Your task to perform on an android device: turn vacation reply on in the gmail app Image 0: 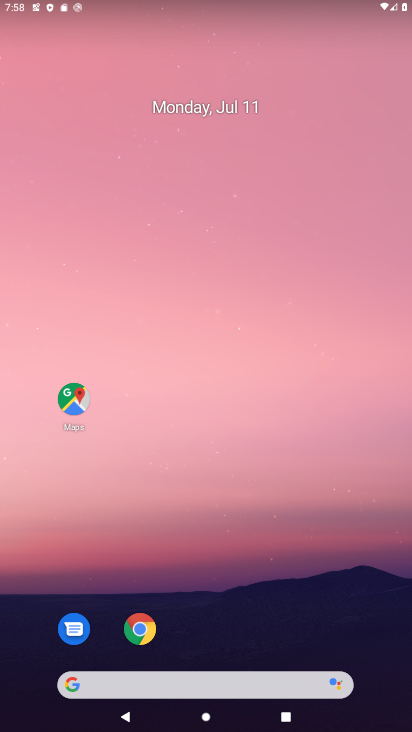
Step 0: drag from (207, 633) to (238, 182)
Your task to perform on an android device: turn vacation reply on in the gmail app Image 1: 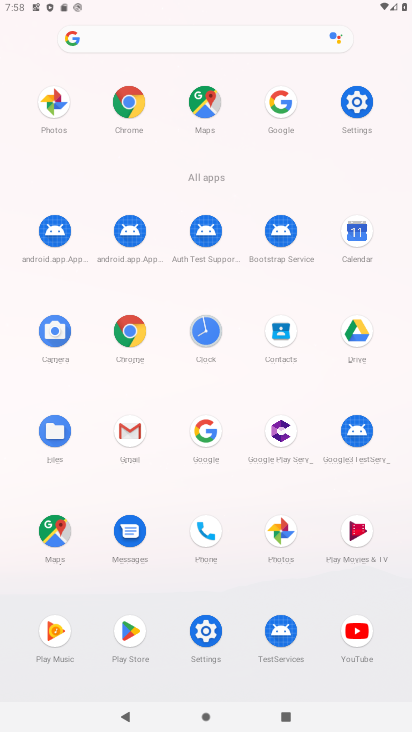
Step 1: click (131, 424)
Your task to perform on an android device: turn vacation reply on in the gmail app Image 2: 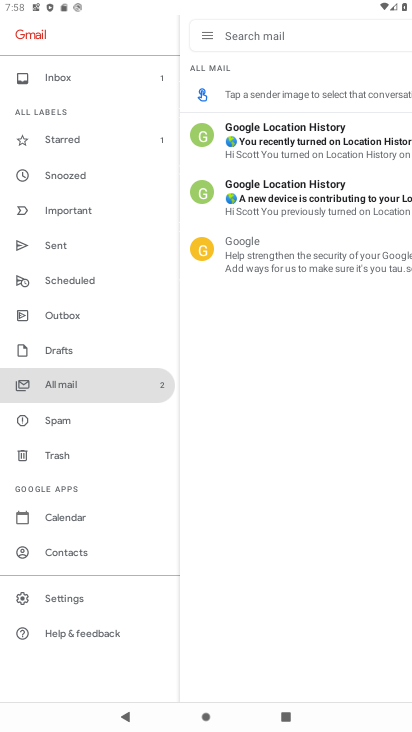
Step 2: click (205, 35)
Your task to perform on an android device: turn vacation reply on in the gmail app Image 3: 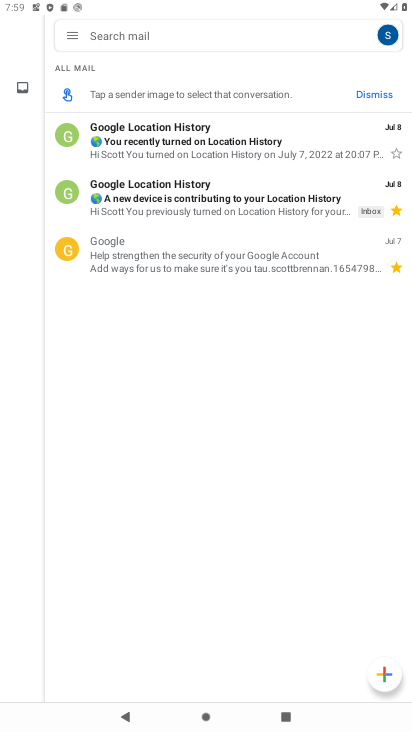
Step 3: click (66, 34)
Your task to perform on an android device: turn vacation reply on in the gmail app Image 4: 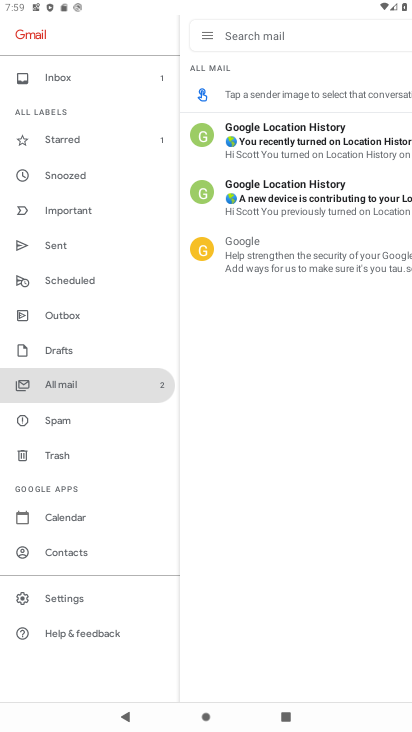
Step 4: click (59, 611)
Your task to perform on an android device: turn vacation reply on in the gmail app Image 5: 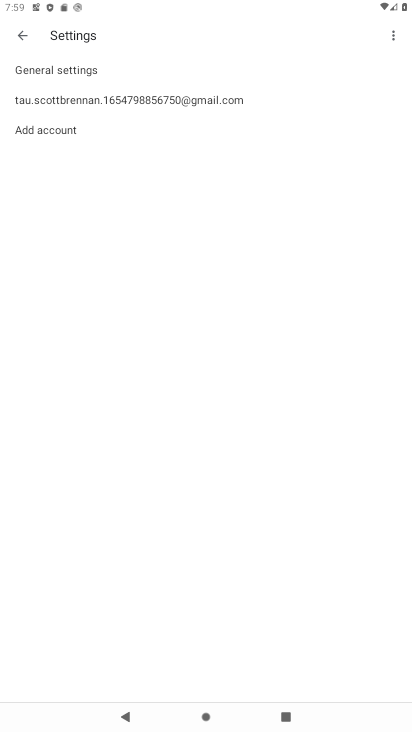
Step 5: click (73, 92)
Your task to perform on an android device: turn vacation reply on in the gmail app Image 6: 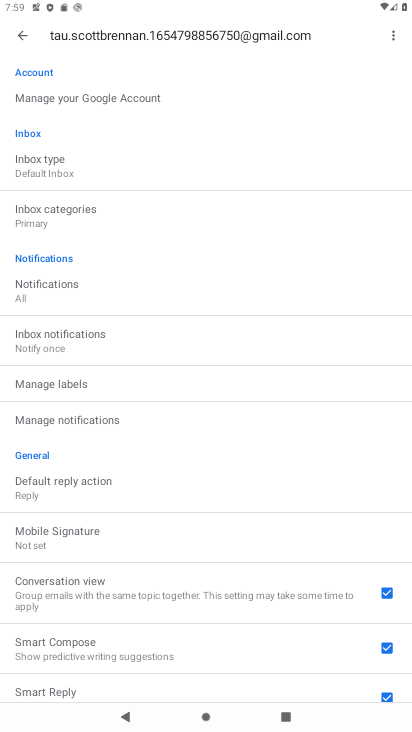
Step 6: drag from (101, 648) to (163, 358)
Your task to perform on an android device: turn vacation reply on in the gmail app Image 7: 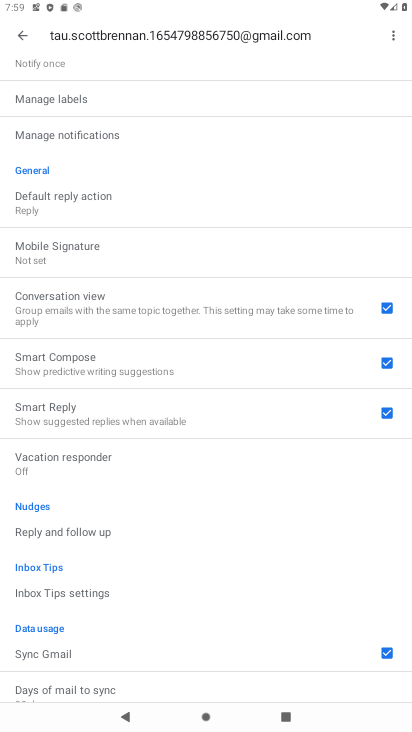
Step 7: click (126, 466)
Your task to perform on an android device: turn vacation reply on in the gmail app Image 8: 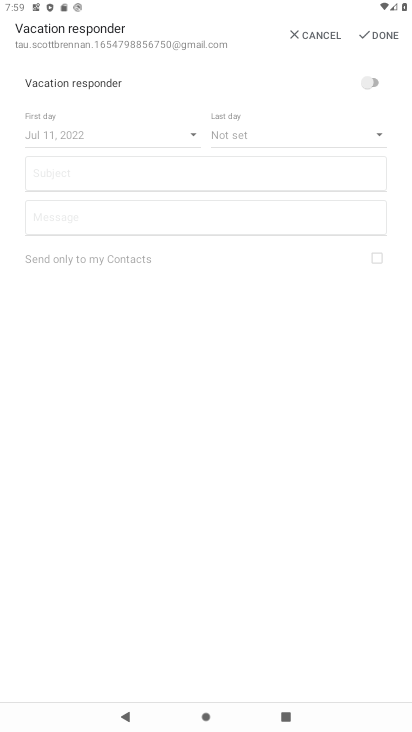
Step 8: click (369, 80)
Your task to perform on an android device: turn vacation reply on in the gmail app Image 9: 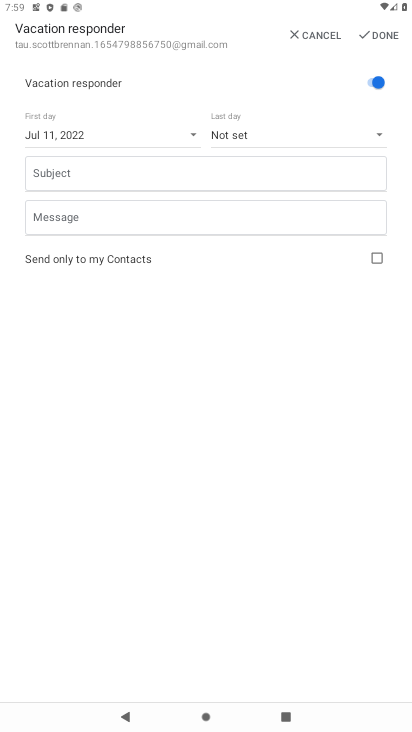
Step 9: task complete